Your task to perform on an android device: Go to notification settings Image 0: 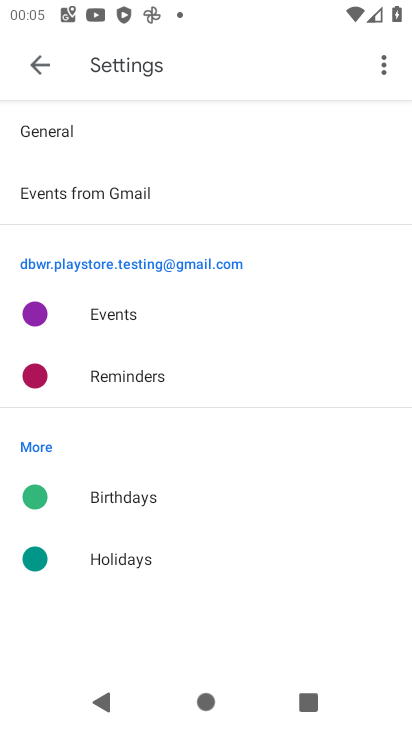
Step 0: press home button
Your task to perform on an android device: Go to notification settings Image 1: 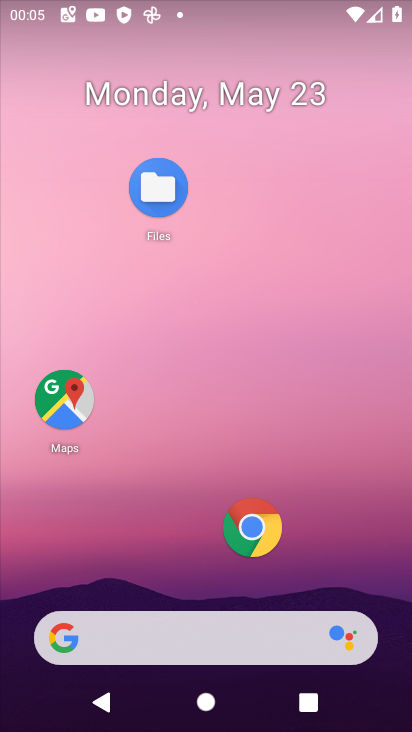
Step 1: drag from (164, 531) to (209, 20)
Your task to perform on an android device: Go to notification settings Image 2: 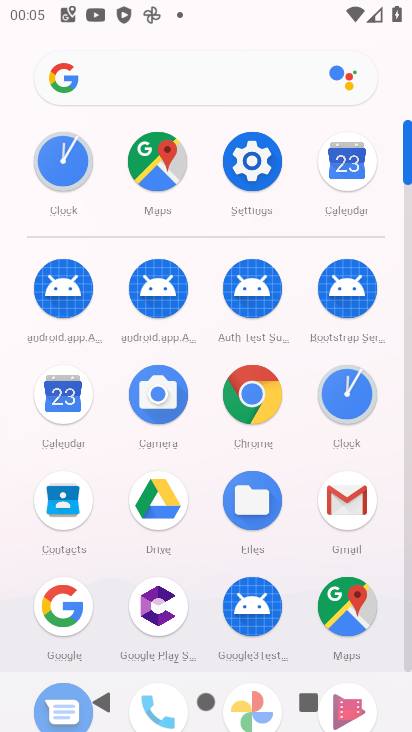
Step 2: click (248, 160)
Your task to perform on an android device: Go to notification settings Image 3: 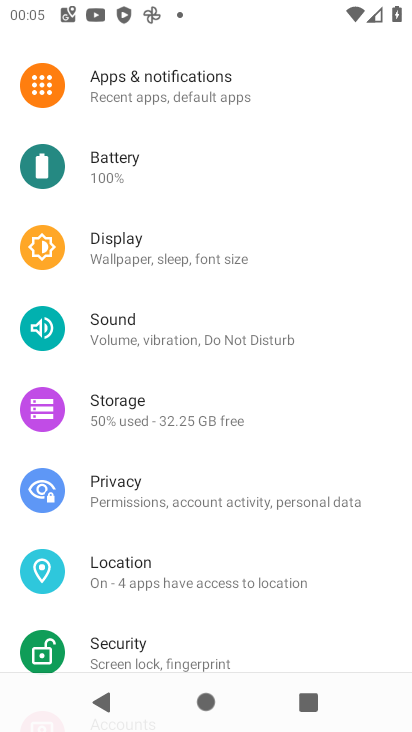
Step 3: click (169, 71)
Your task to perform on an android device: Go to notification settings Image 4: 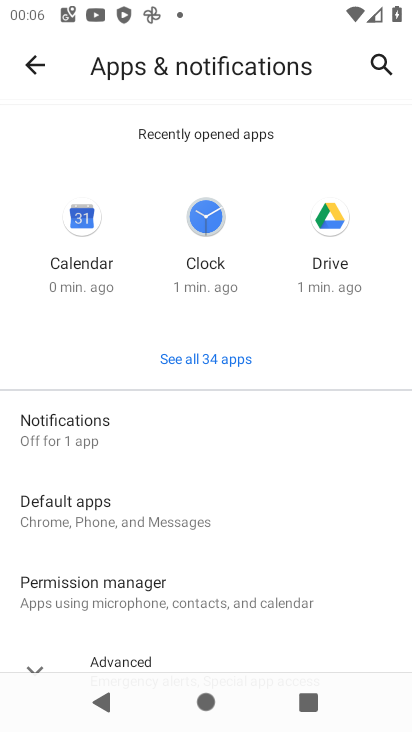
Step 4: task complete